Your task to perform on an android device: turn on wifi Image 0: 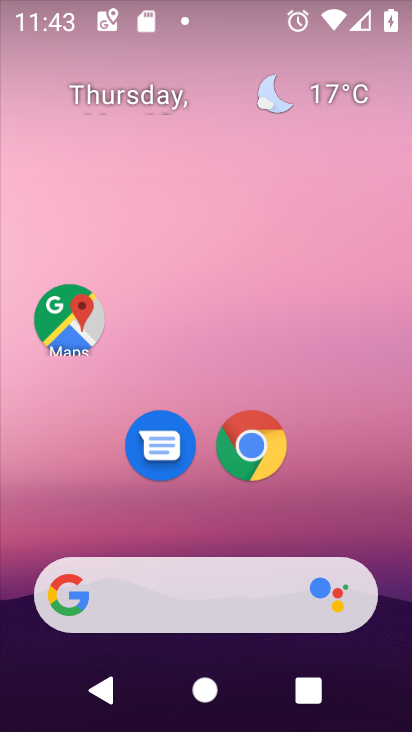
Step 0: drag from (341, 6) to (305, 504)
Your task to perform on an android device: turn on wifi Image 1: 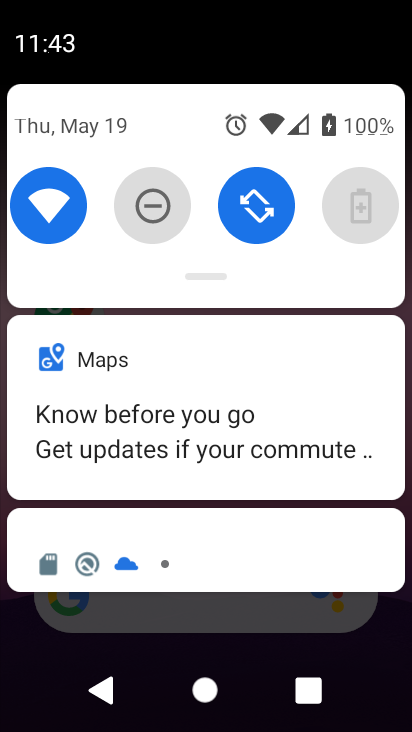
Step 1: click (160, 648)
Your task to perform on an android device: turn on wifi Image 2: 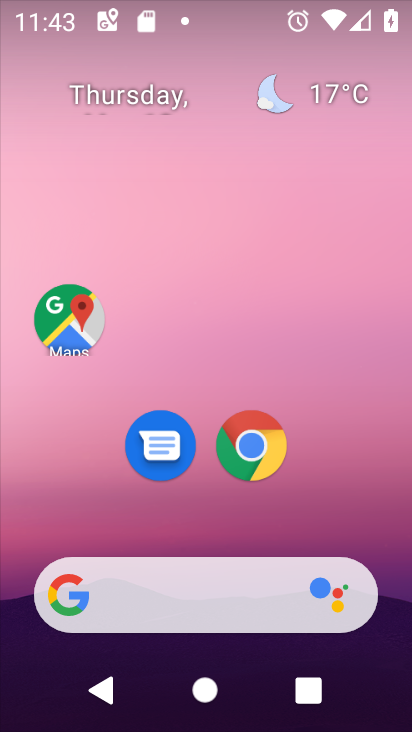
Step 2: task complete